Your task to perform on an android device: empty trash in google photos Image 0: 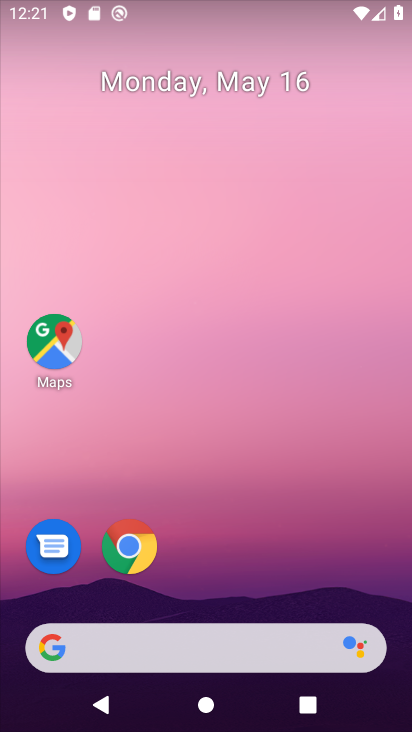
Step 0: drag from (305, 510) to (319, 129)
Your task to perform on an android device: empty trash in google photos Image 1: 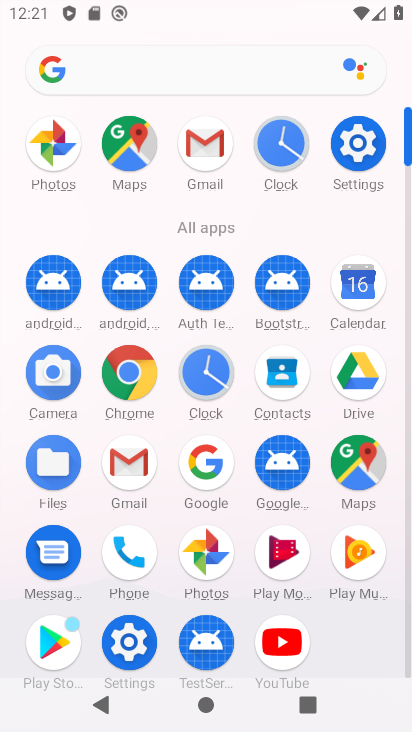
Step 1: click (210, 555)
Your task to perform on an android device: empty trash in google photos Image 2: 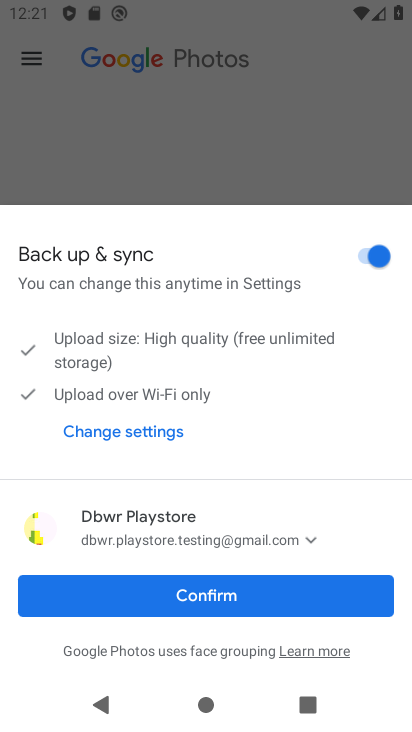
Step 2: click (212, 580)
Your task to perform on an android device: empty trash in google photos Image 3: 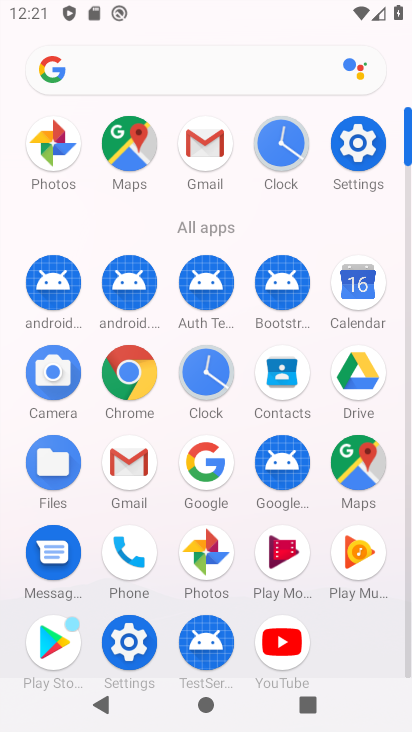
Step 3: click (214, 563)
Your task to perform on an android device: empty trash in google photos Image 4: 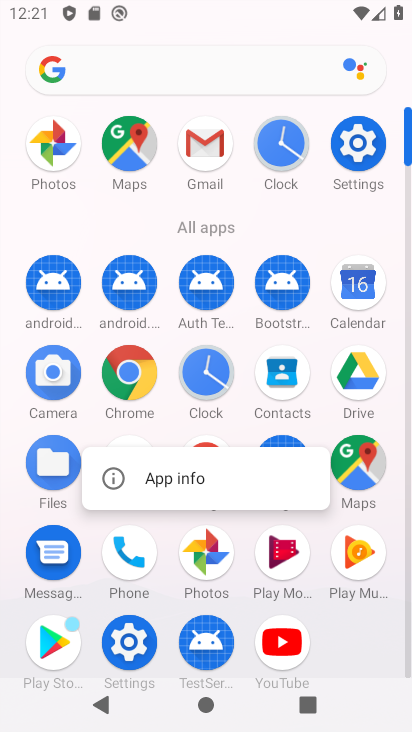
Step 4: click (213, 559)
Your task to perform on an android device: empty trash in google photos Image 5: 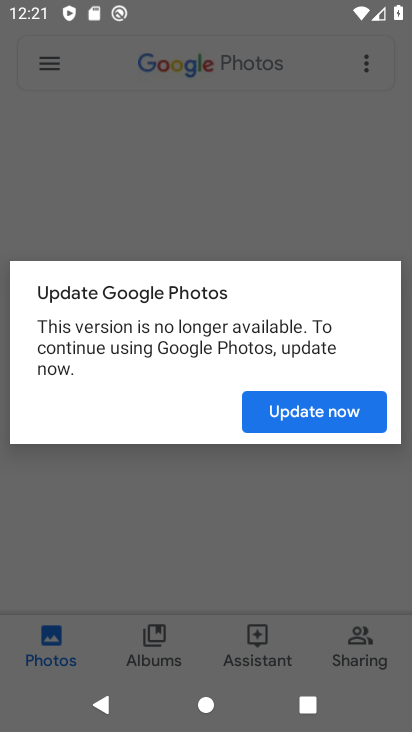
Step 5: click (345, 424)
Your task to perform on an android device: empty trash in google photos Image 6: 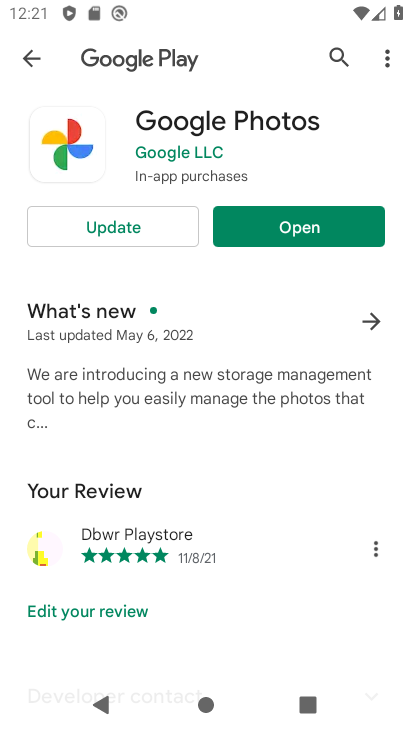
Step 6: click (84, 222)
Your task to perform on an android device: empty trash in google photos Image 7: 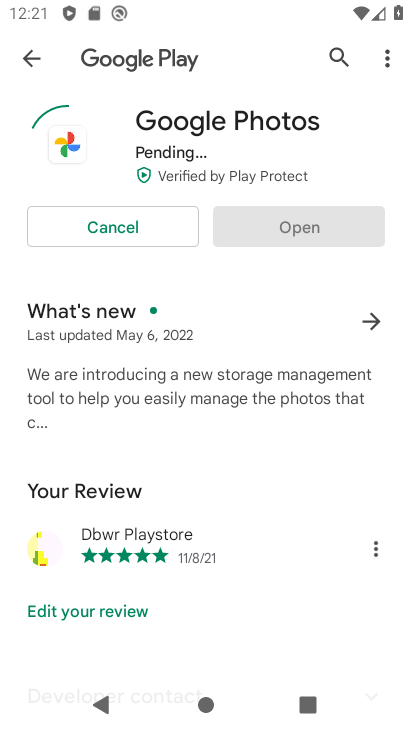
Step 7: task complete